Your task to perform on an android device: Open Youtube and go to the subscriptions tab Image 0: 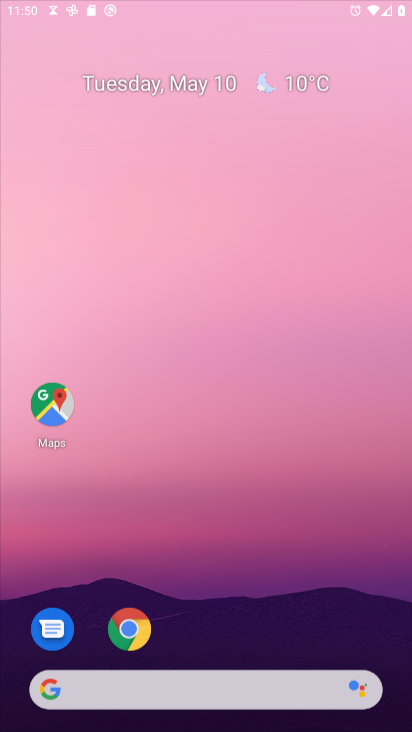
Step 0: click (268, 102)
Your task to perform on an android device: Open Youtube and go to the subscriptions tab Image 1: 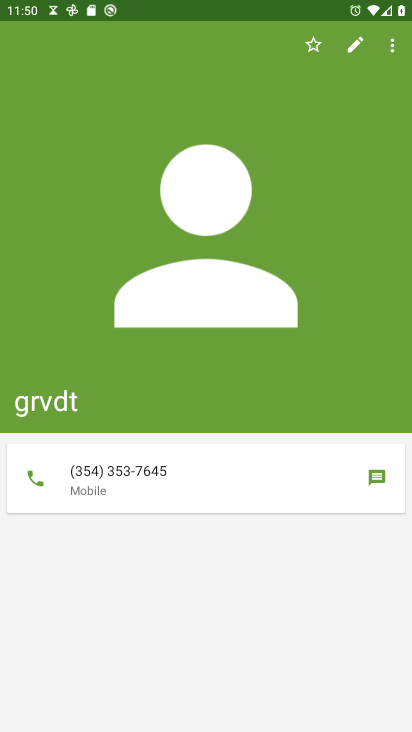
Step 1: press home button
Your task to perform on an android device: Open Youtube and go to the subscriptions tab Image 2: 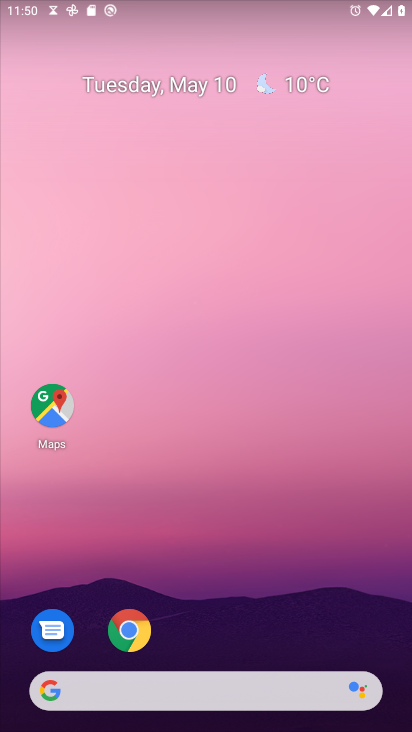
Step 2: drag from (244, 609) to (242, 130)
Your task to perform on an android device: Open Youtube and go to the subscriptions tab Image 3: 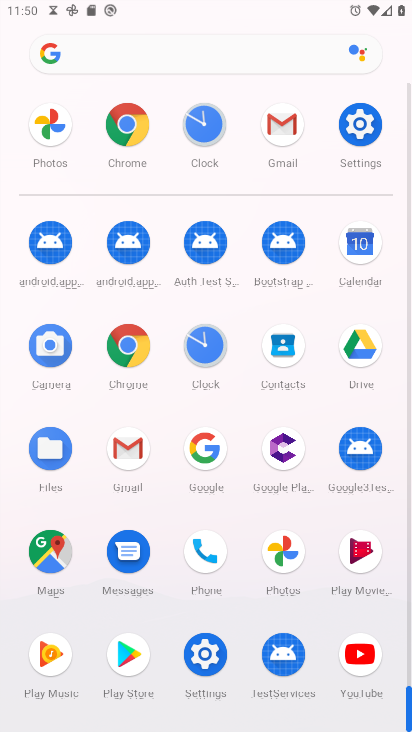
Step 3: click (356, 659)
Your task to perform on an android device: Open Youtube and go to the subscriptions tab Image 4: 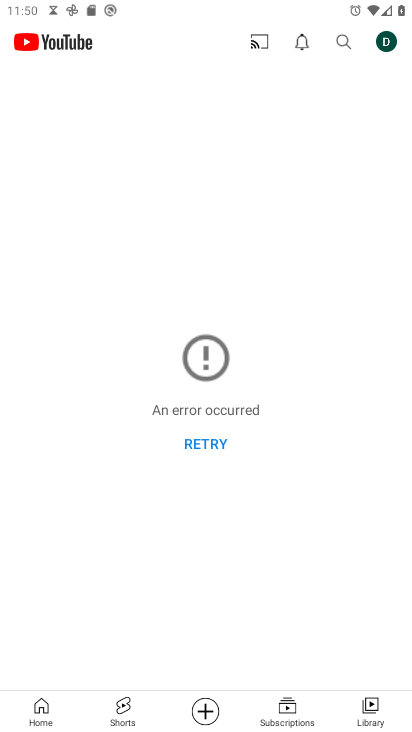
Step 4: click (282, 712)
Your task to perform on an android device: Open Youtube and go to the subscriptions tab Image 5: 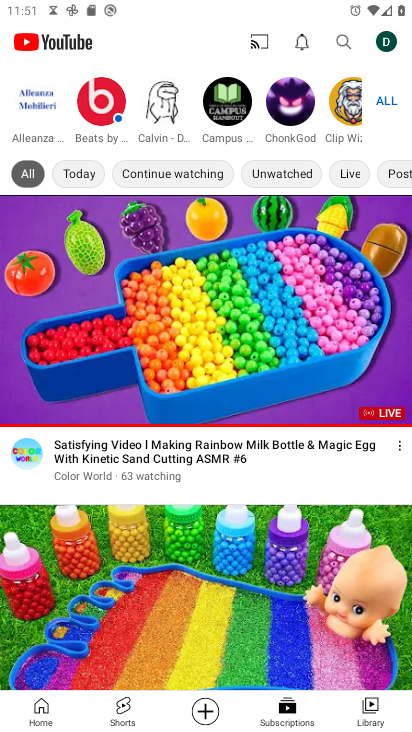
Step 5: task complete